Your task to perform on an android device: Open Maps and search for coffee Image 0: 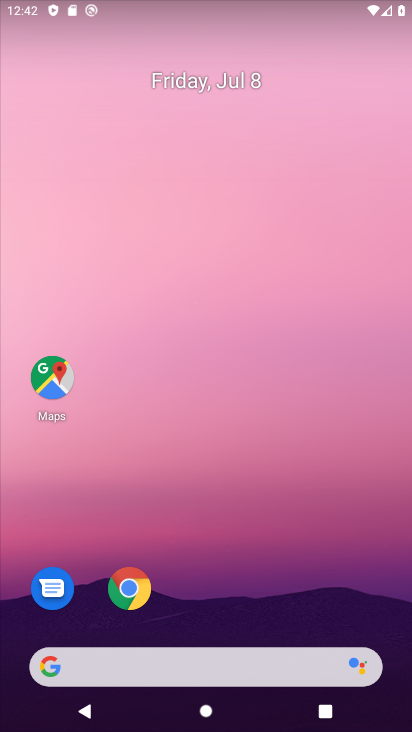
Step 0: drag from (217, 643) to (192, 165)
Your task to perform on an android device: Open Maps and search for coffee Image 1: 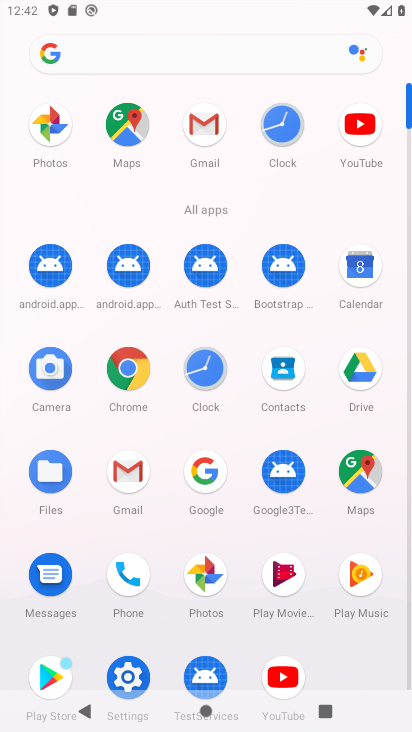
Step 1: click (357, 479)
Your task to perform on an android device: Open Maps and search for coffee Image 2: 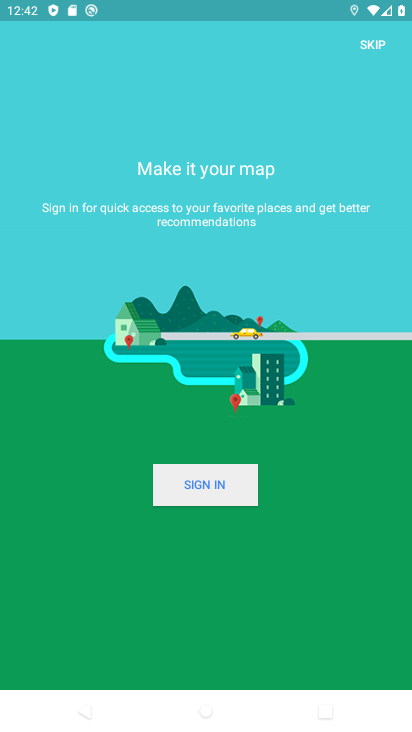
Step 2: click (217, 493)
Your task to perform on an android device: Open Maps and search for coffee Image 3: 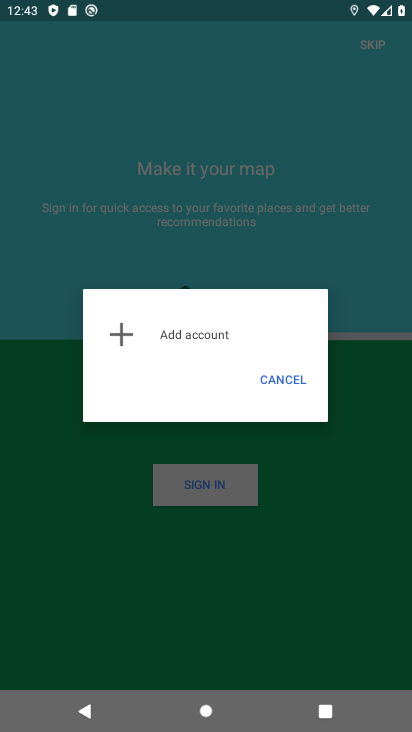
Step 3: click (274, 377)
Your task to perform on an android device: Open Maps and search for coffee Image 4: 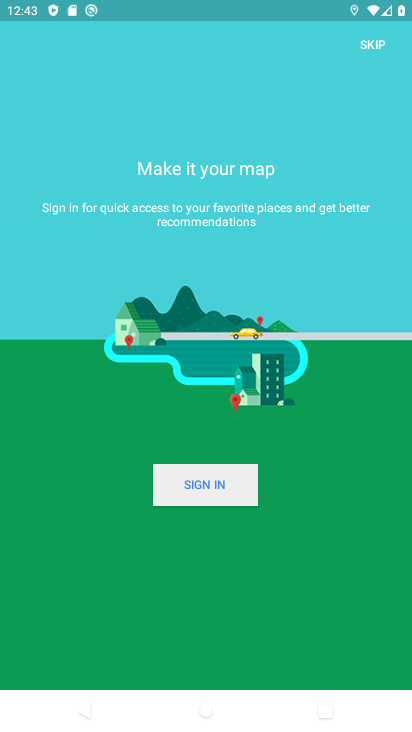
Step 4: click (368, 46)
Your task to perform on an android device: Open Maps and search for coffee Image 5: 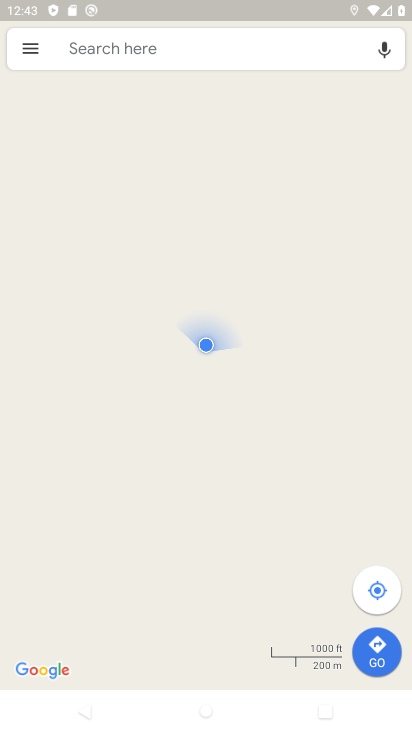
Step 5: click (143, 48)
Your task to perform on an android device: Open Maps and search for coffee Image 6: 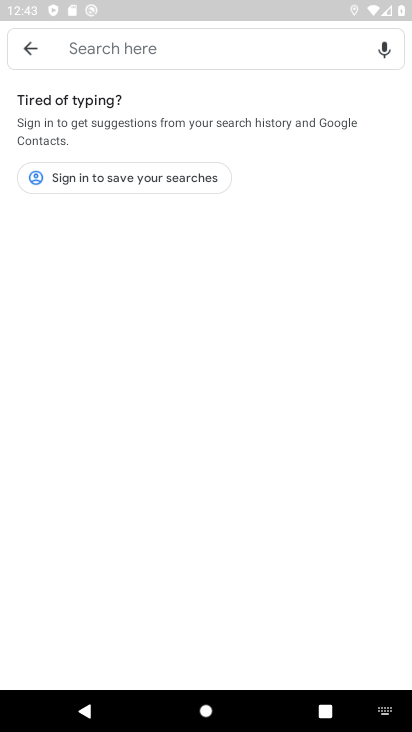
Step 6: type "coffee"
Your task to perform on an android device: Open Maps and search for coffee Image 7: 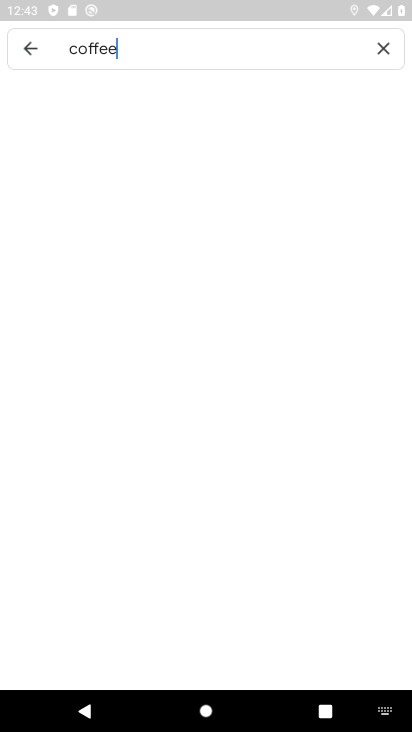
Step 7: type ""
Your task to perform on an android device: Open Maps and search for coffee Image 8: 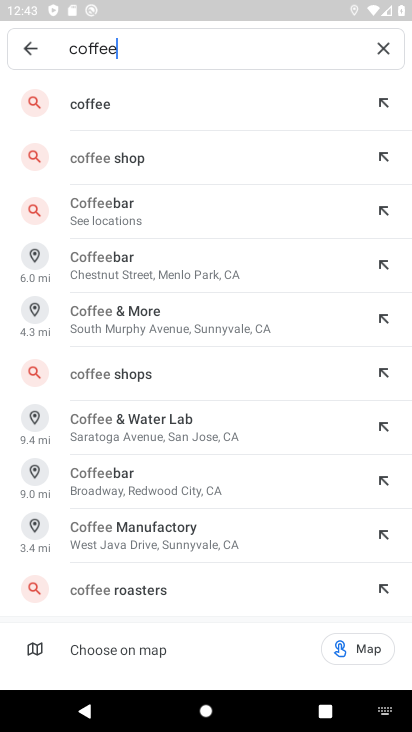
Step 8: click (57, 116)
Your task to perform on an android device: Open Maps and search for coffee Image 9: 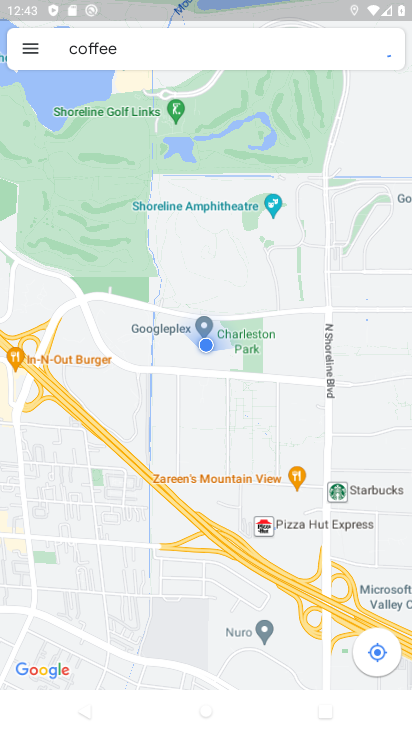
Step 9: task complete